Your task to perform on an android device: open device folders in google photos Image 0: 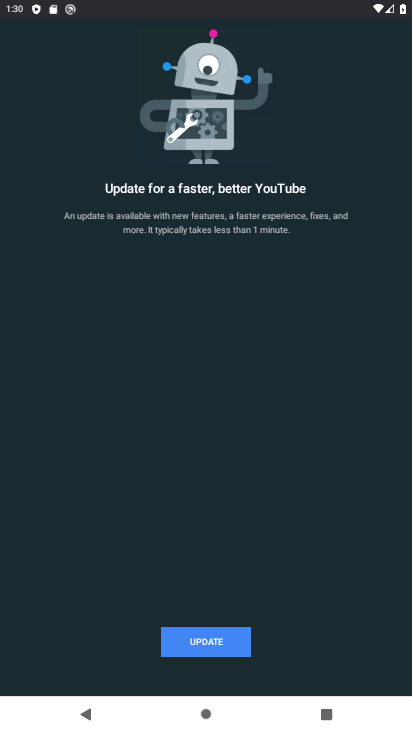
Step 0: press home button
Your task to perform on an android device: open device folders in google photos Image 1: 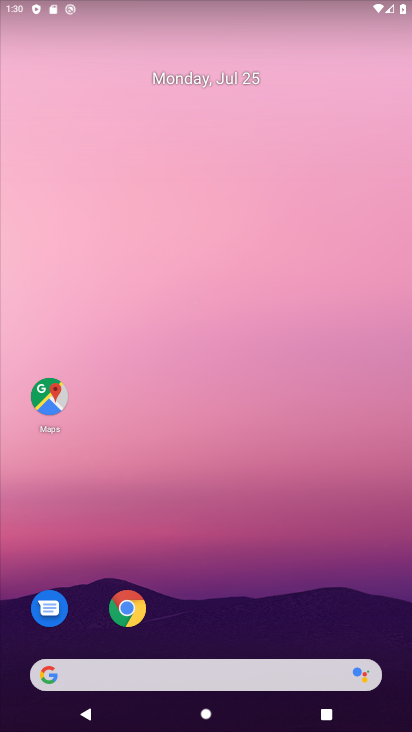
Step 1: drag from (205, 670) to (263, 76)
Your task to perform on an android device: open device folders in google photos Image 2: 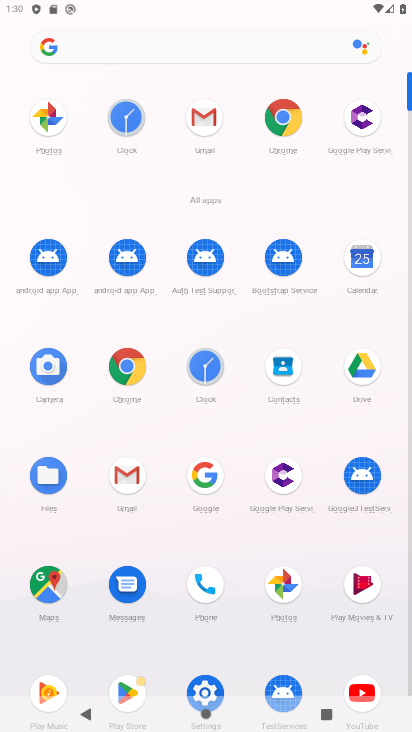
Step 2: click (268, 584)
Your task to perform on an android device: open device folders in google photos Image 3: 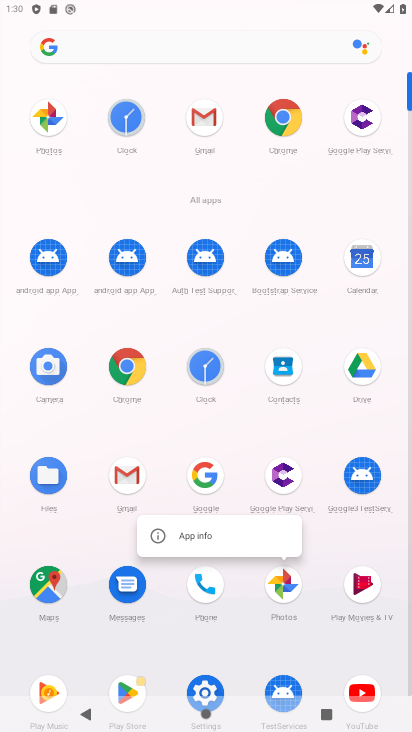
Step 3: click (275, 586)
Your task to perform on an android device: open device folders in google photos Image 4: 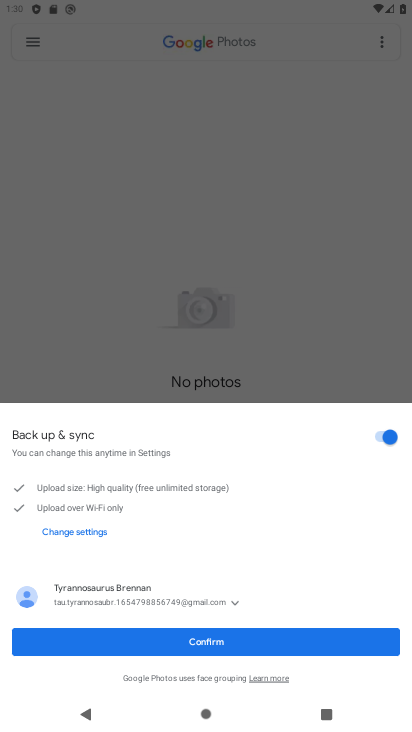
Step 4: click (196, 642)
Your task to perform on an android device: open device folders in google photos Image 5: 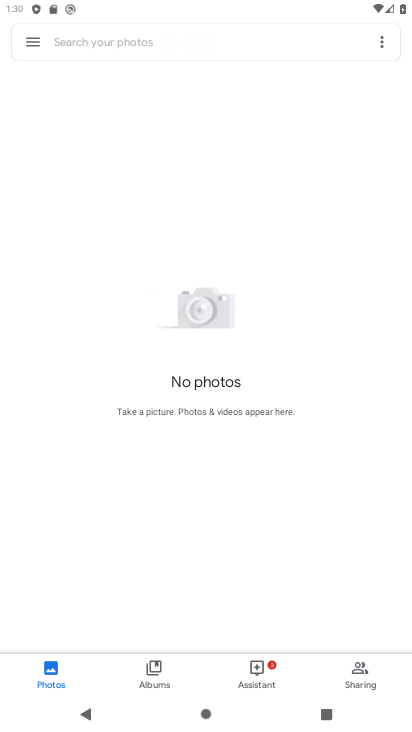
Step 5: task complete